Your task to perform on an android device: Open Youtube and go to the subscriptions tab Image 0: 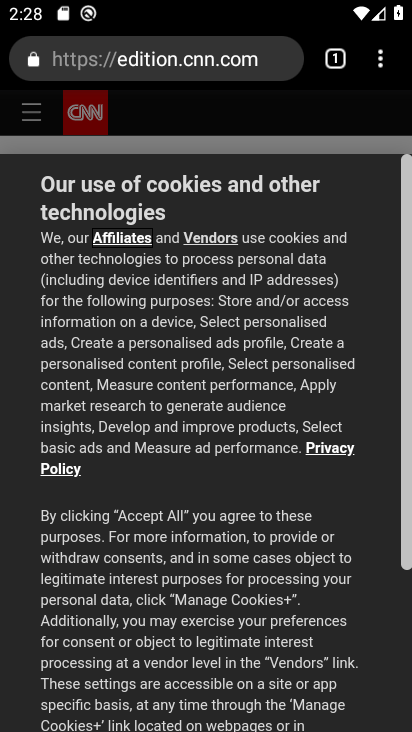
Step 0: press home button
Your task to perform on an android device: Open Youtube and go to the subscriptions tab Image 1: 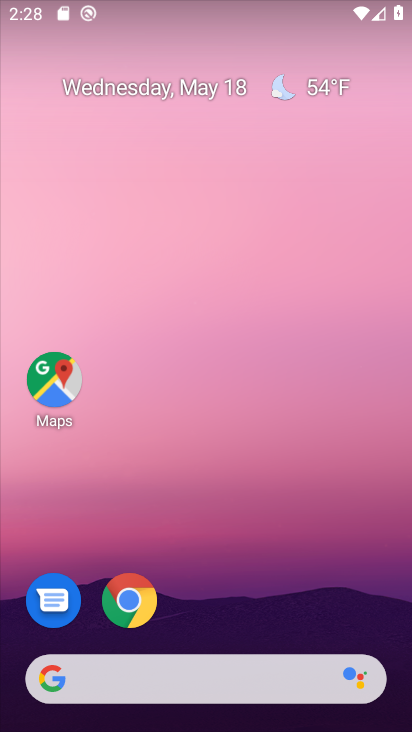
Step 1: drag from (234, 586) to (234, 31)
Your task to perform on an android device: Open Youtube and go to the subscriptions tab Image 2: 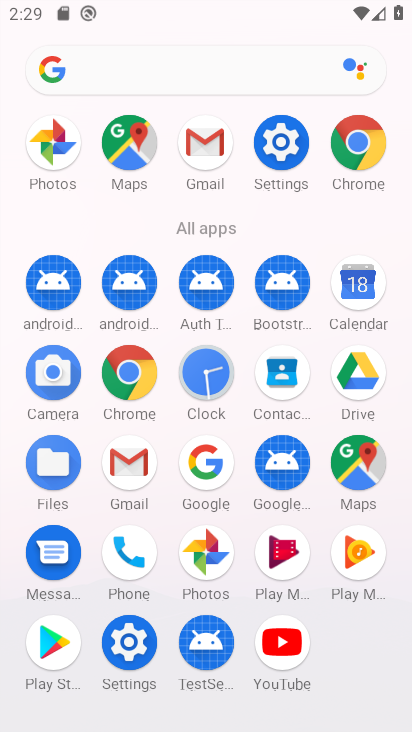
Step 2: drag from (222, 528) to (241, 408)
Your task to perform on an android device: Open Youtube and go to the subscriptions tab Image 3: 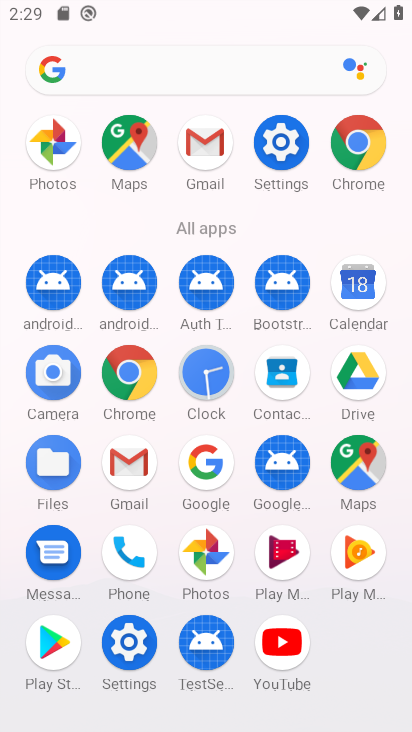
Step 3: click (287, 666)
Your task to perform on an android device: Open Youtube and go to the subscriptions tab Image 4: 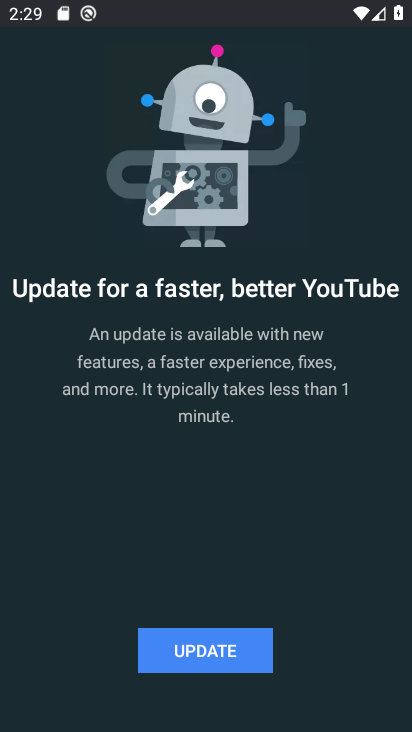
Step 4: click (201, 647)
Your task to perform on an android device: Open Youtube and go to the subscriptions tab Image 5: 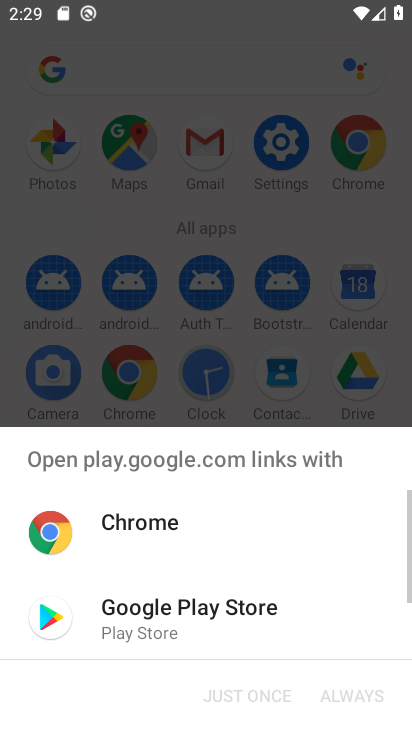
Step 5: click (182, 625)
Your task to perform on an android device: Open Youtube and go to the subscriptions tab Image 6: 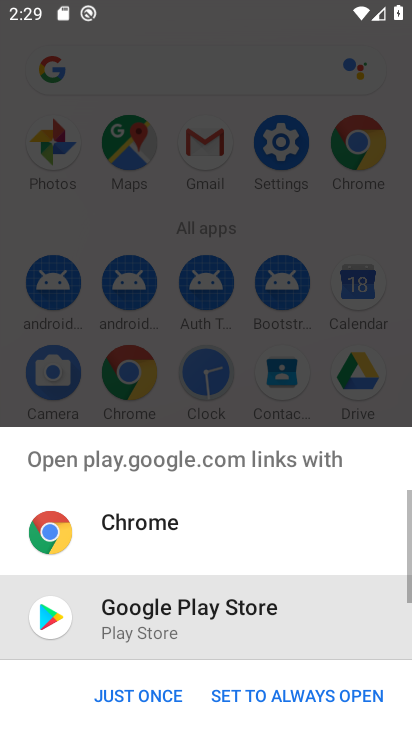
Step 6: click (219, 694)
Your task to perform on an android device: Open Youtube and go to the subscriptions tab Image 7: 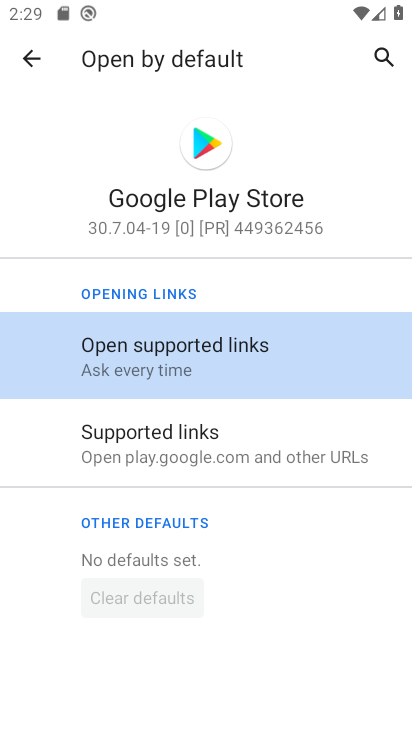
Step 7: click (36, 43)
Your task to perform on an android device: Open Youtube and go to the subscriptions tab Image 8: 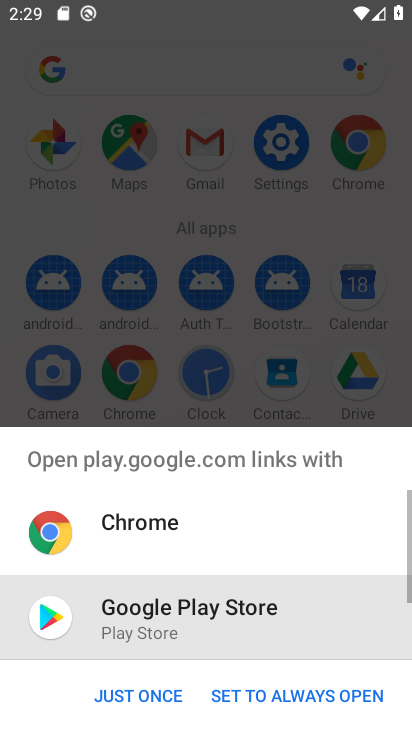
Step 8: click (144, 689)
Your task to perform on an android device: Open Youtube and go to the subscriptions tab Image 9: 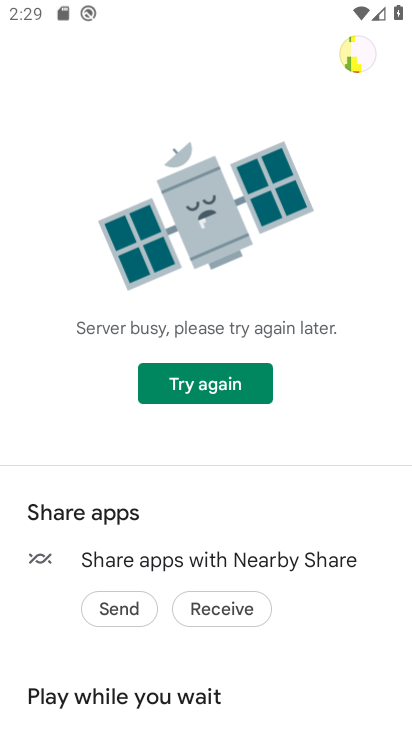
Step 9: click (176, 405)
Your task to perform on an android device: Open Youtube and go to the subscriptions tab Image 10: 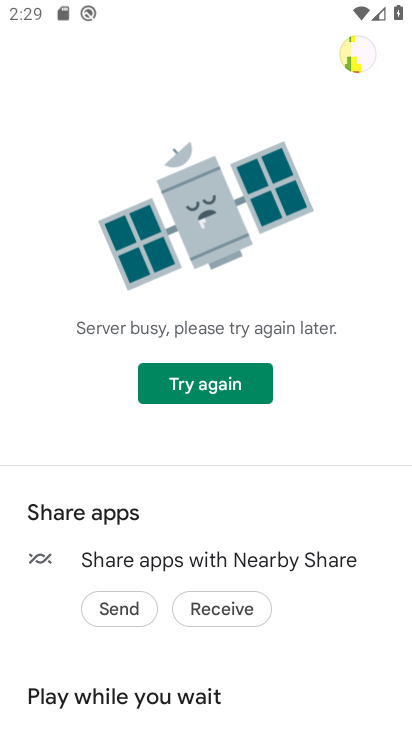
Step 10: click (187, 383)
Your task to perform on an android device: Open Youtube and go to the subscriptions tab Image 11: 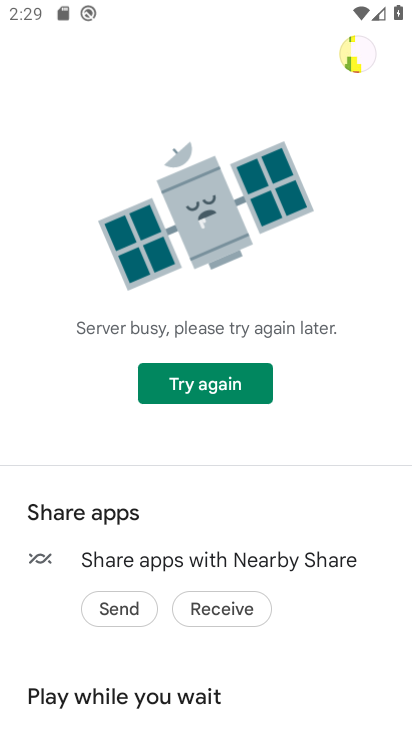
Step 11: task complete